Your task to perform on an android device: Open my contact list Image 0: 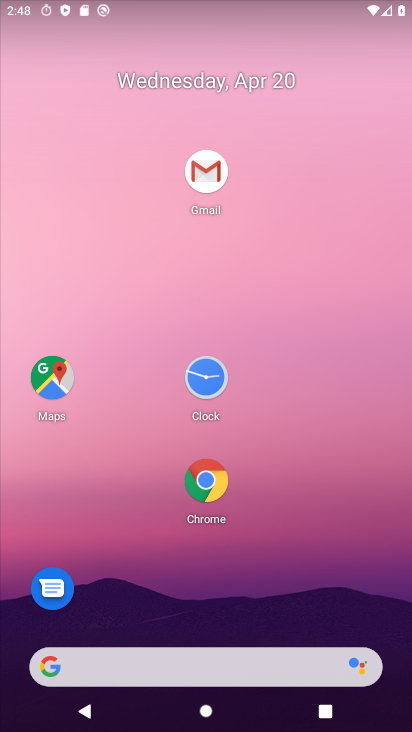
Step 0: drag from (382, 704) to (271, 281)
Your task to perform on an android device: Open my contact list Image 1: 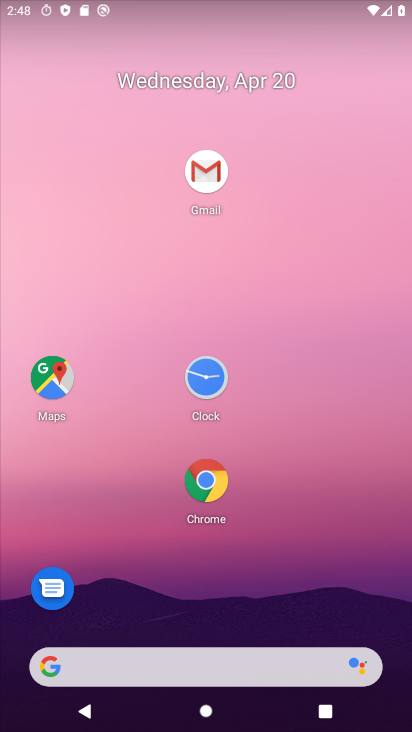
Step 1: drag from (324, 524) to (220, 180)
Your task to perform on an android device: Open my contact list Image 2: 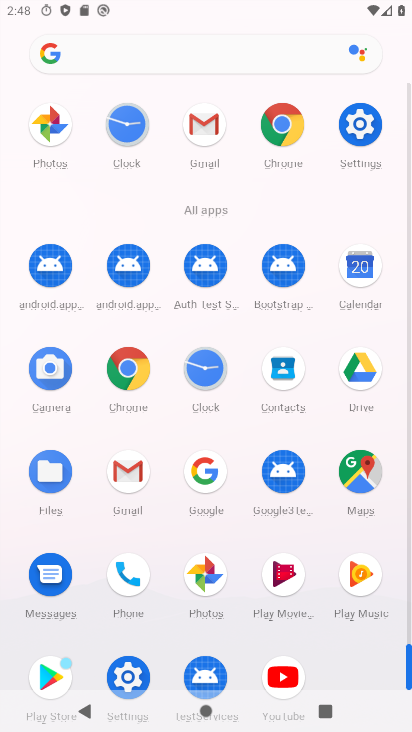
Step 2: click (289, 374)
Your task to perform on an android device: Open my contact list Image 3: 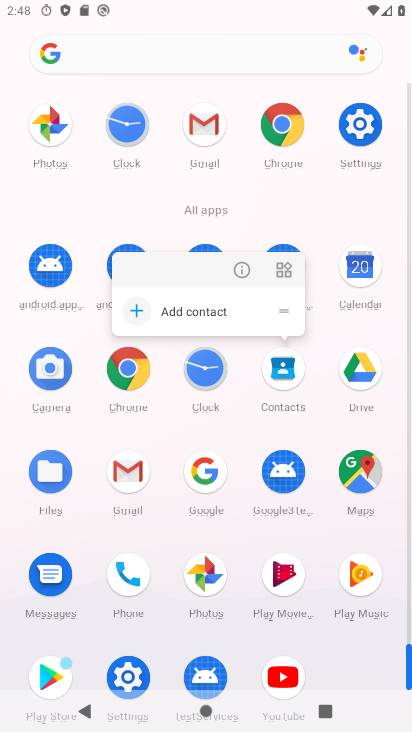
Step 3: click (289, 373)
Your task to perform on an android device: Open my contact list Image 4: 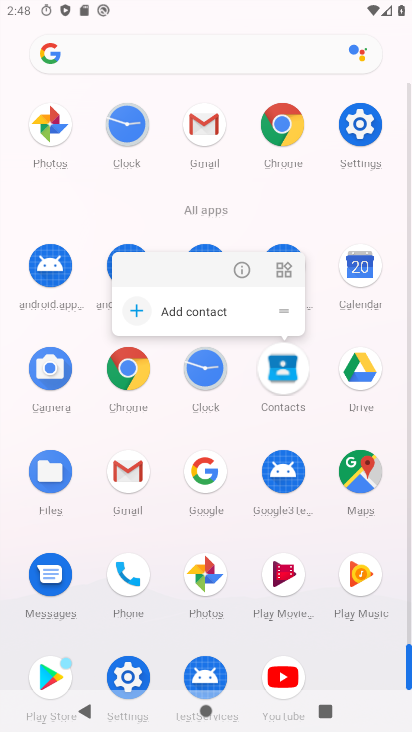
Step 4: click (295, 368)
Your task to perform on an android device: Open my contact list Image 5: 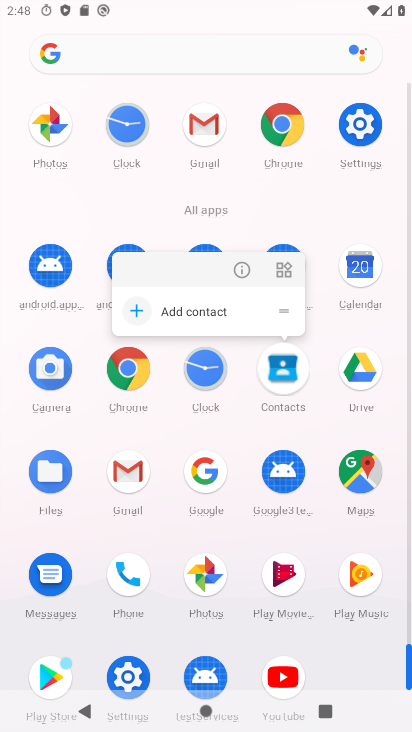
Step 5: click (295, 368)
Your task to perform on an android device: Open my contact list Image 6: 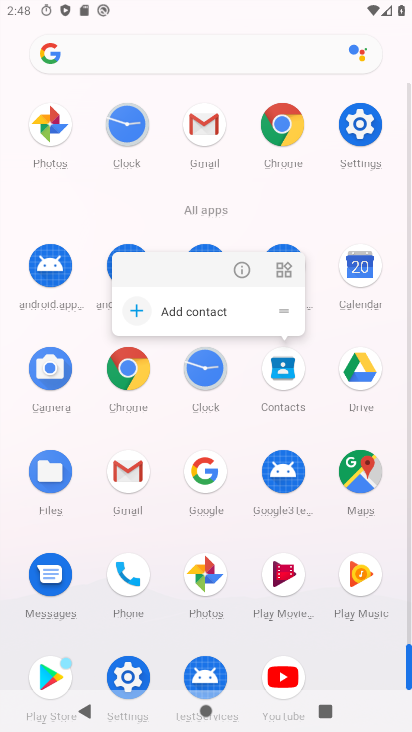
Step 6: click (273, 381)
Your task to perform on an android device: Open my contact list Image 7: 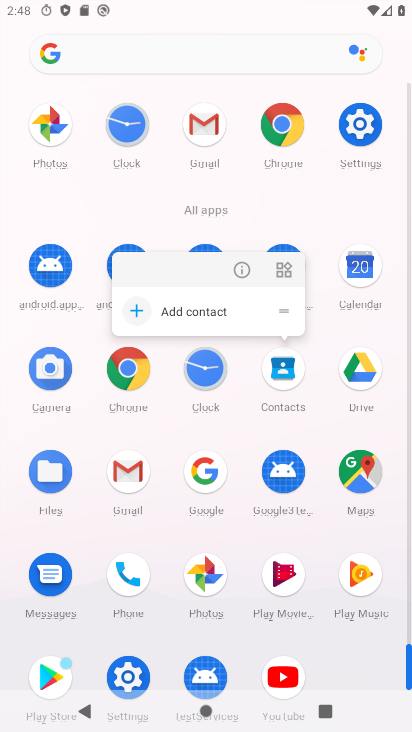
Step 7: click (273, 381)
Your task to perform on an android device: Open my contact list Image 8: 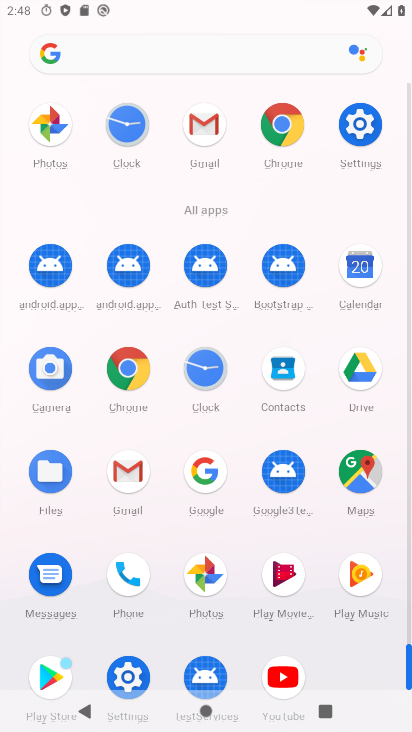
Step 8: click (273, 381)
Your task to perform on an android device: Open my contact list Image 9: 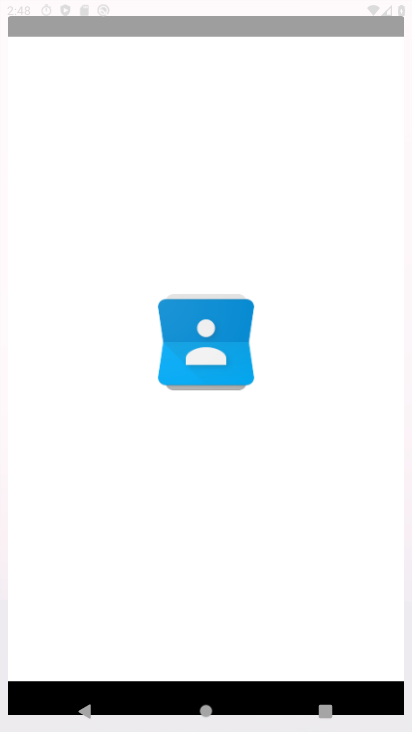
Step 9: click (273, 381)
Your task to perform on an android device: Open my contact list Image 10: 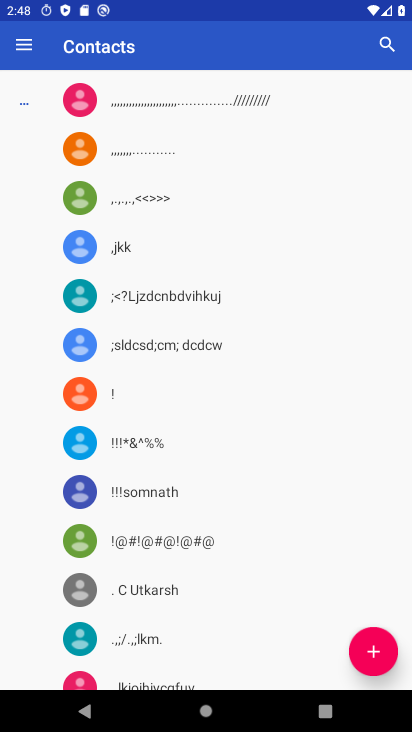
Step 10: task complete